Your task to perform on an android device: Open the map Image 0: 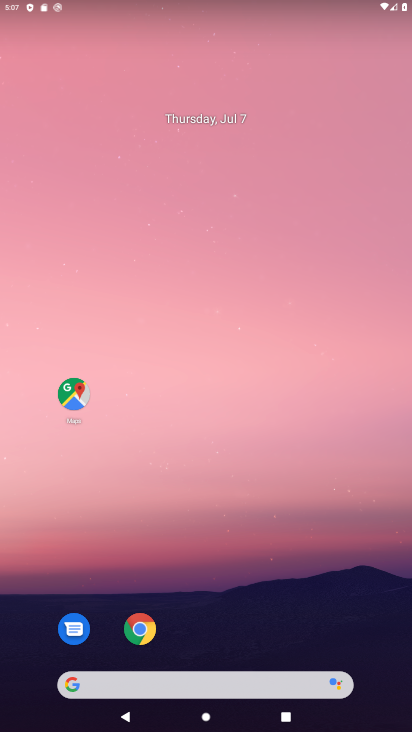
Step 0: drag from (277, 595) to (390, 58)
Your task to perform on an android device: Open the map Image 1: 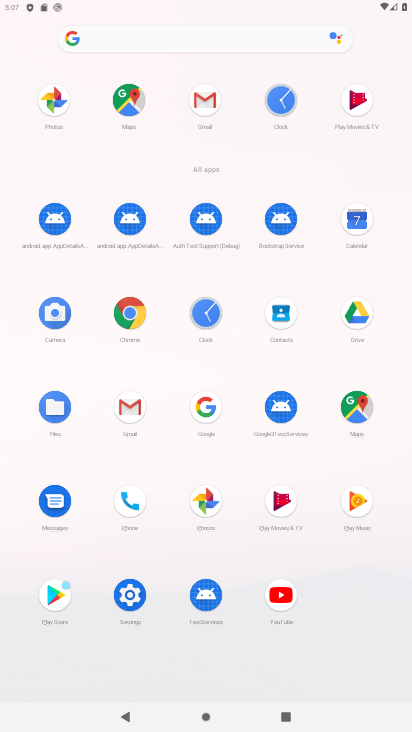
Step 1: click (358, 410)
Your task to perform on an android device: Open the map Image 2: 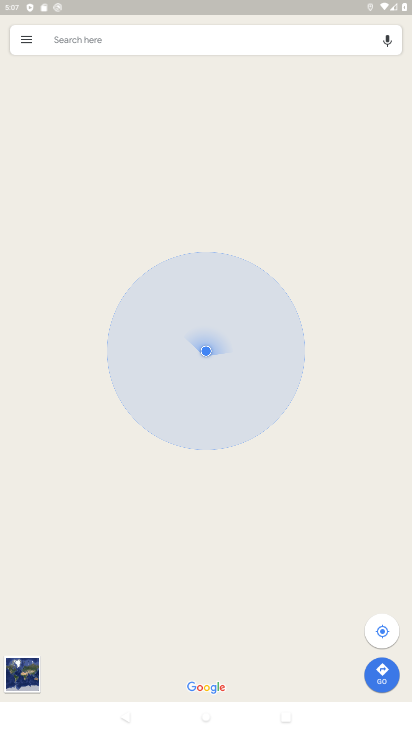
Step 2: task complete